Your task to perform on an android device: change alarm snooze length Image 0: 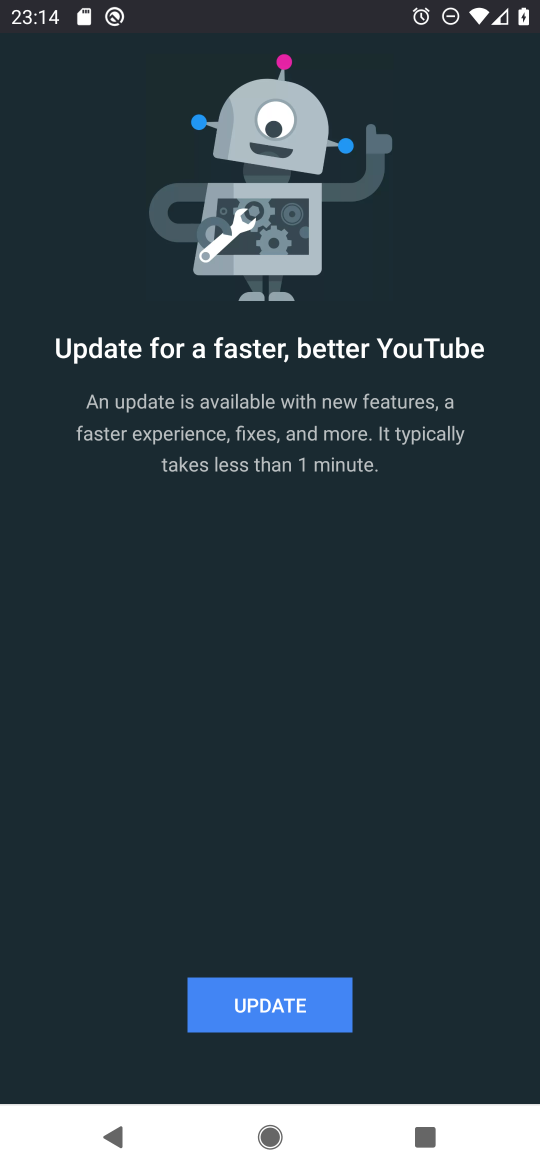
Step 0: press home button
Your task to perform on an android device: change alarm snooze length Image 1: 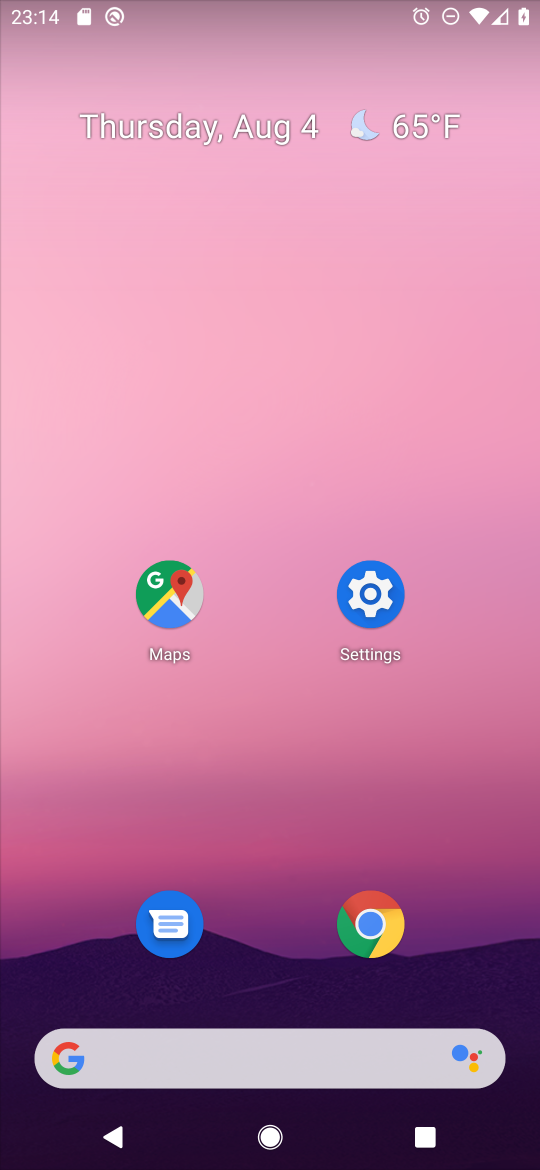
Step 1: drag from (249, 963) to (401, 243)
Your task to perform on an android device: change alarm snooze length Image 2: 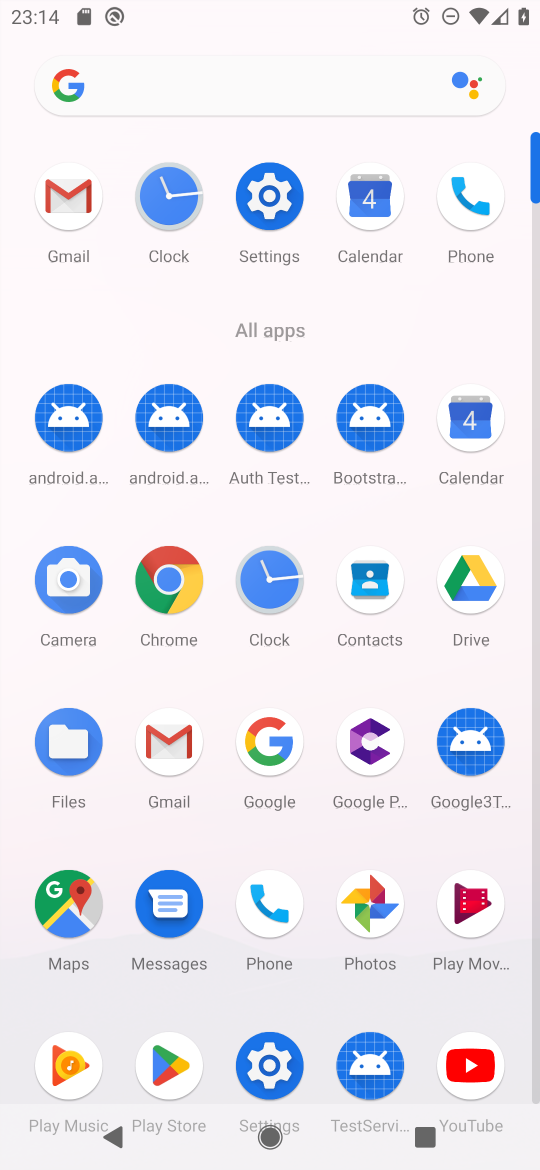
Step 2: click (265, 586)
Your task to perform on an android device: change alarm snooze length Image 3: 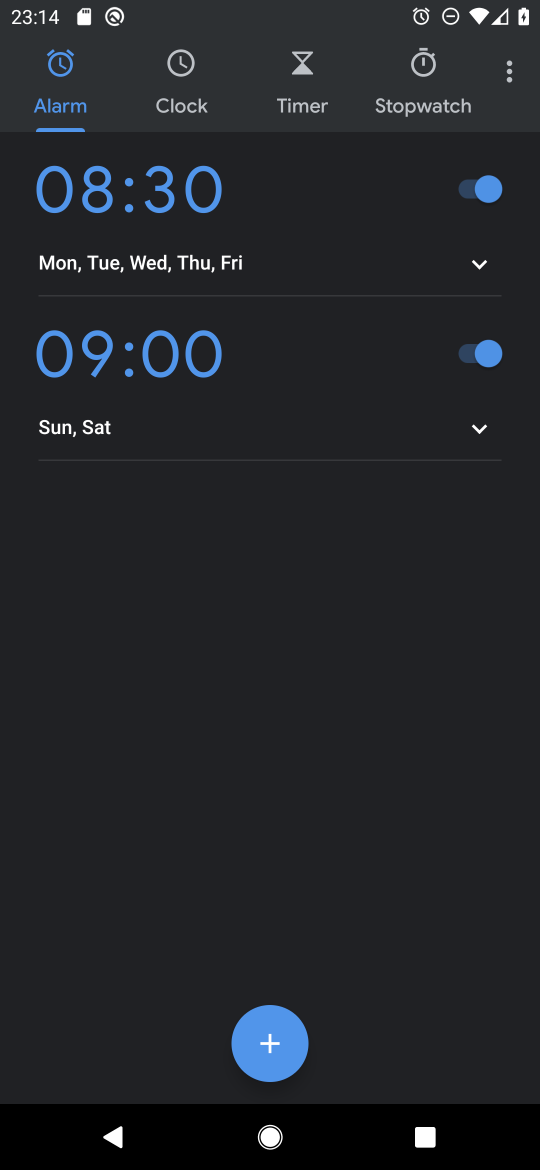
Step 3: click (504, 77)
Your task to perform on an android device: change alarm snooze length Image 4: 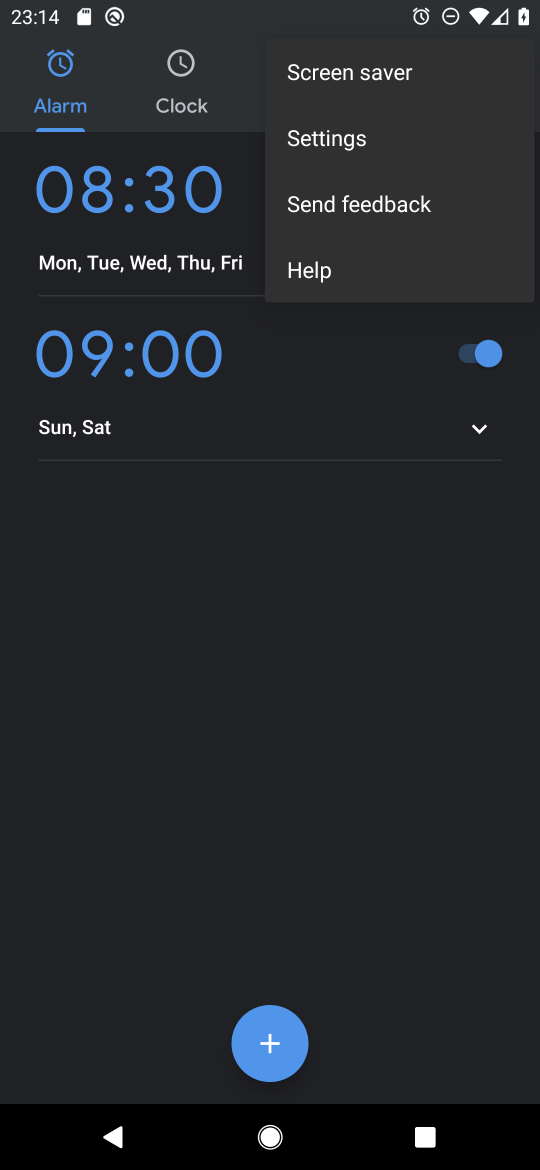
Step 4: click (324, 135)
Your task to perform on an android device: change alarm snooze length Image 5: 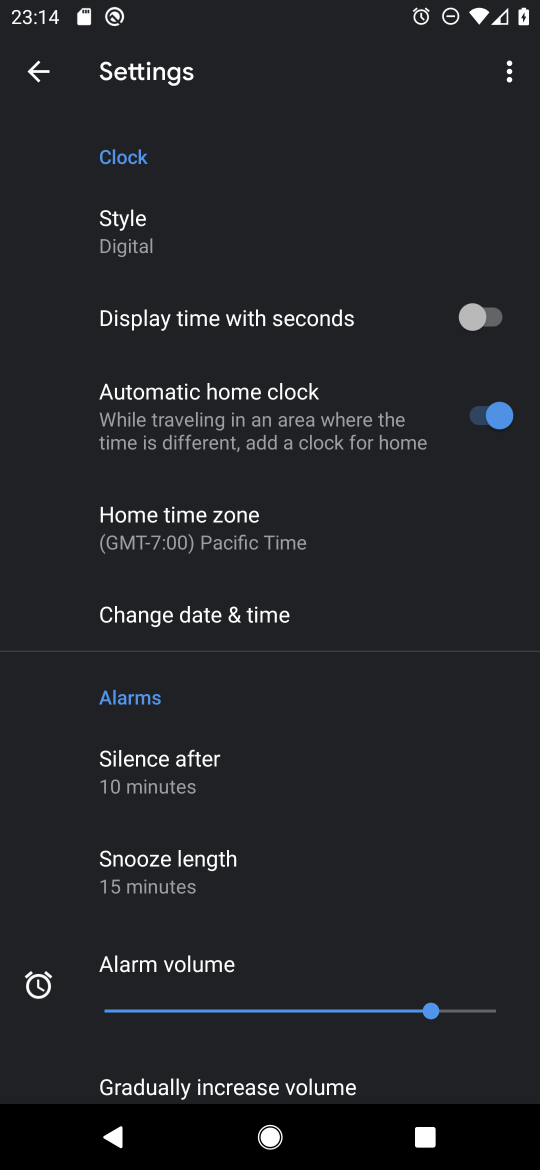
Step 5: click (162, 881)
Your task to perform on an android device: change alarm snooze length Image 6: 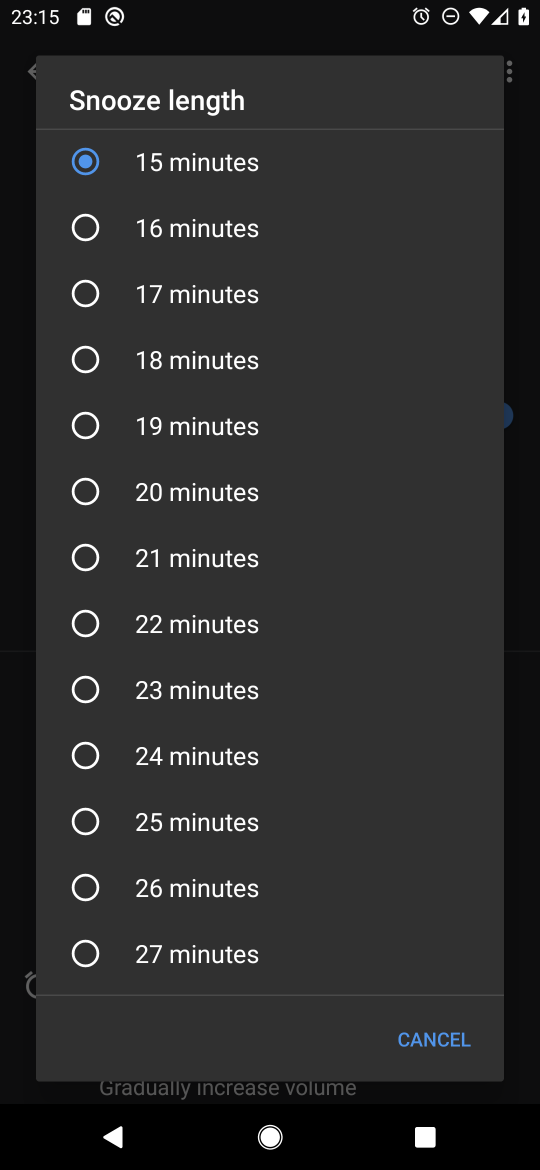
Step 6: click (91, 491)
Your task to perform on an android device: change alarm snooze length Image 7: 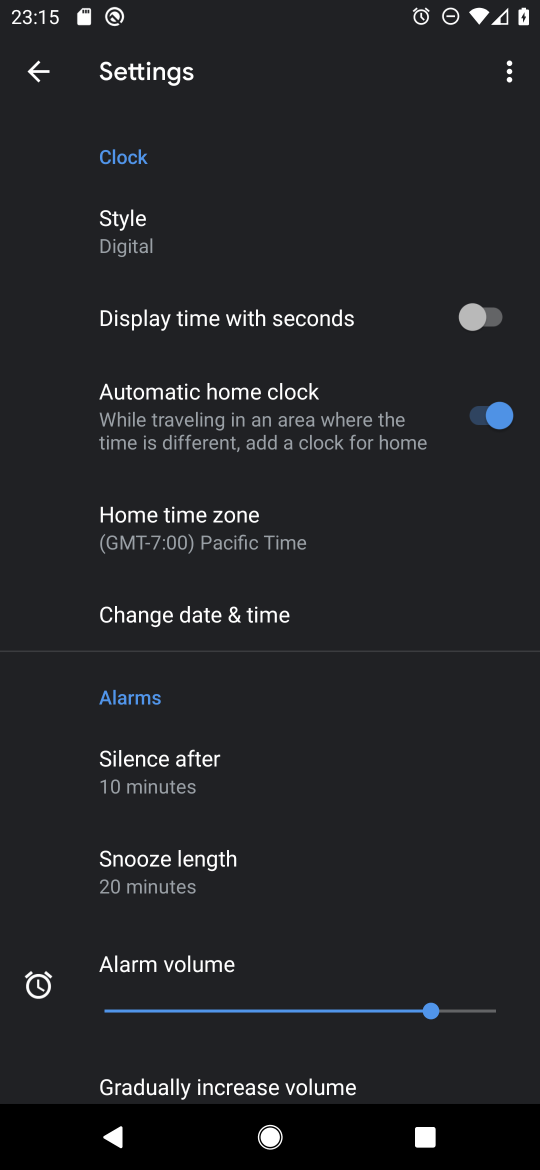
Step 7: task complete